Your task to perform on an android device: toggle notifications settings in the gmail app Image 0: 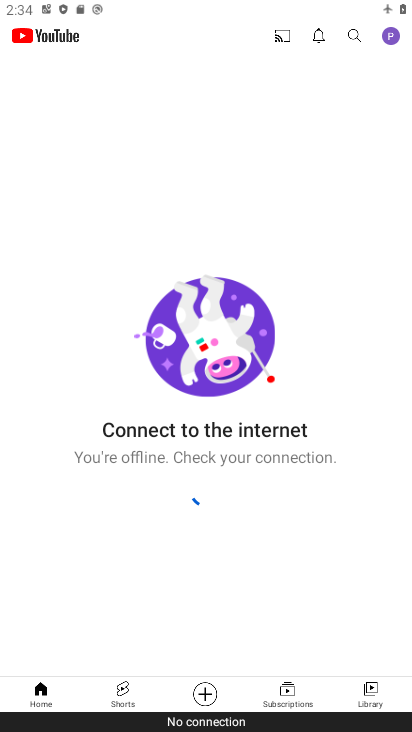
Step 0: press home button
Your task to perform on an android device: toggle notifications settings in the gmail app Image 1: 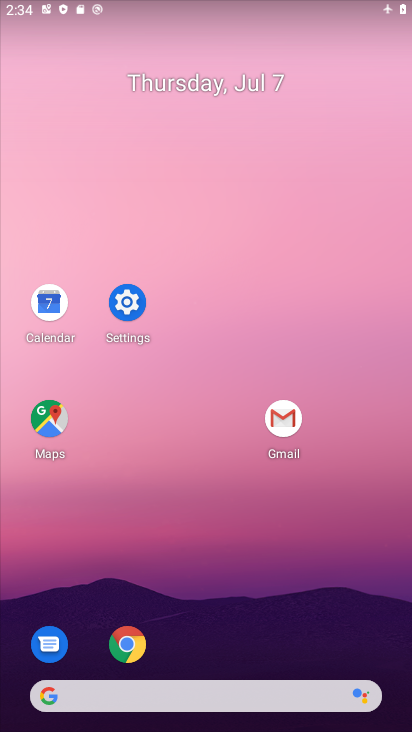
Step 1: click (289, 411)
Your task to perform on an android device: toggle notifications settings in the gmail app Image 2: 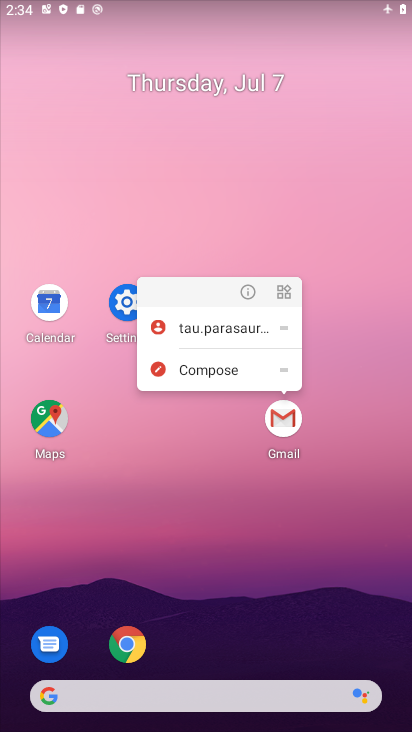
Step 2: click (284, 413)
Your task to perform on an android device: toggle notifications settings in the gmail app Image 3: 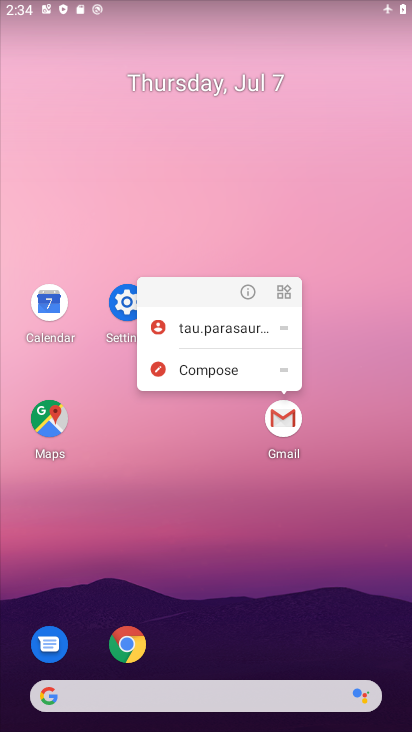
Step 3: click (284, 413)
Your task to perform on an android device: toggle notifications settings in the gmail app Image 4: 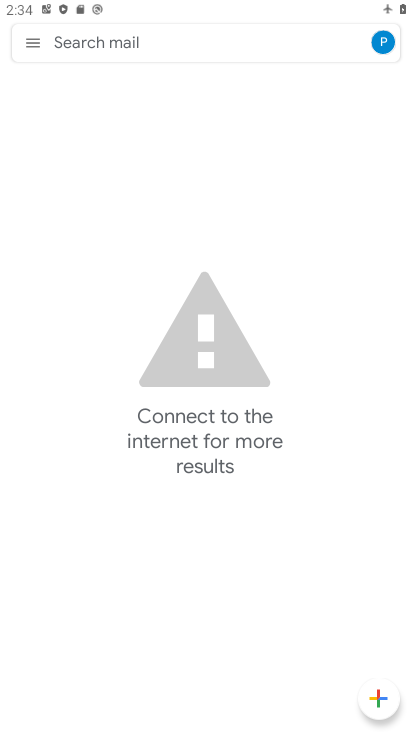
Step 4: click (284, 413)
Your task to perform on an android device: toggle notifications settings in the gmail app Image 5: 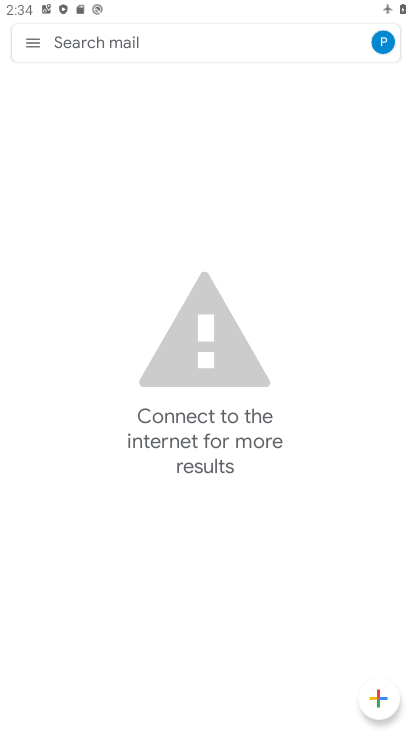
Step 5: click (30, 41)
Your task to perform on an android device: toggle notifications settings in the gmail app Image 6: 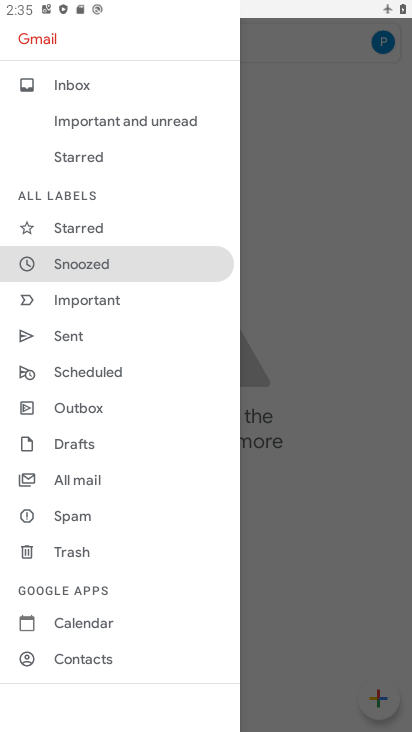
Step 6: drag from (145, 621) to (165, 271)
Your task to perform on an android device: toggle notifications settings in the gmail app Image 7: 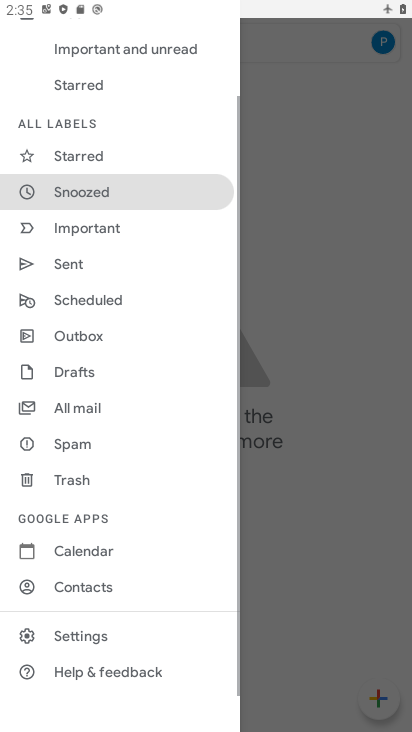
Step 7: click (91, 630)
Your task to perform on an android device: toggle notifications settings in the gmail app Image 8: 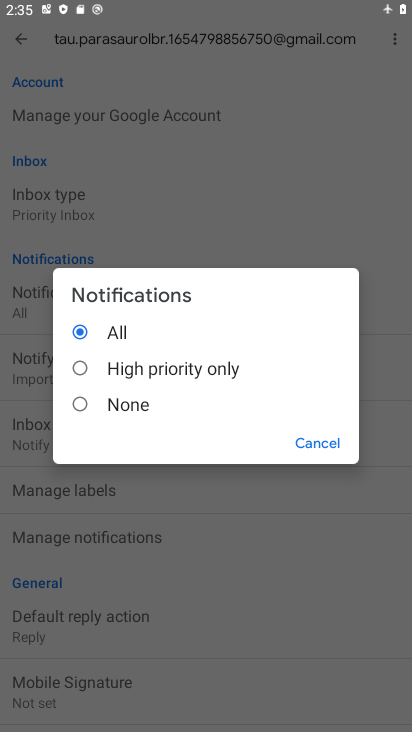
Step 8: click (300, 442)
Your task to perform on an android device: toggle notifications settings in the gmail app Image 9: 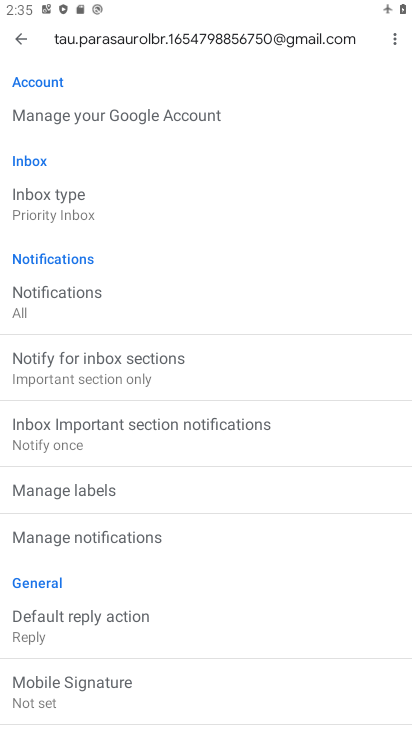
Step 9: drag from (105, 679) to (111, 342)
Your task to perform on an android device: toggle notifications settings in the gmail app Image 10: 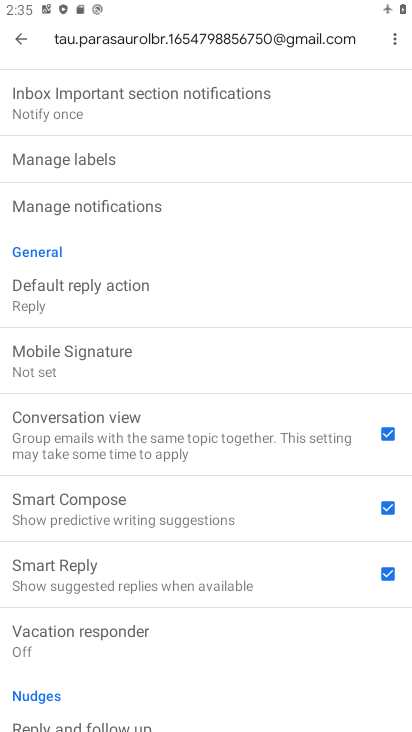
Step 10: drag from (146, 207) to (154, 554)
Your task to perform on an android device: toggle notifications settings in the gmail app Image 11: 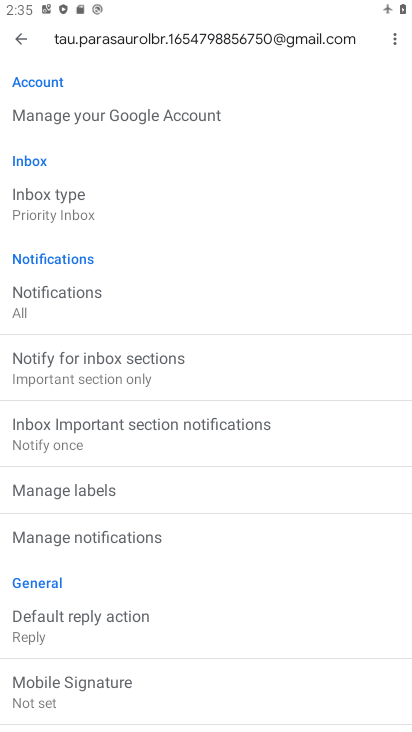
Step 11: click (53, 260)
Your task to perform on an android device: toggle notifications settings in the gmail app Image 12: 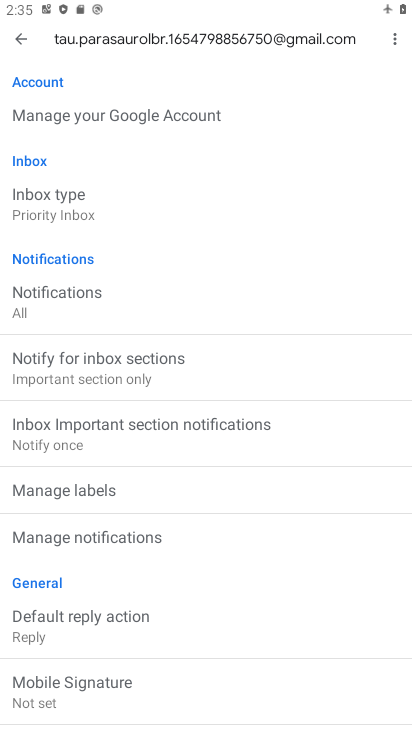
Step 12: click (55, 287)
Your task to perform on an android device: toggle notifications settings in the gmail app Image 13: 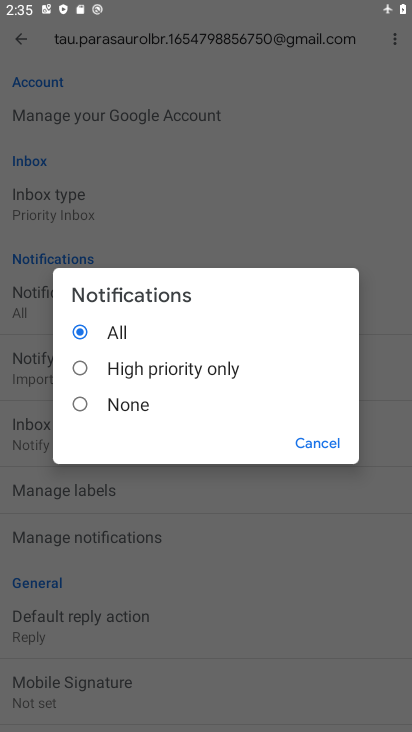
Step 13: click (84, 366)
Your task to perform on an android device: toggle notifications settings in the gmail app Image 14: 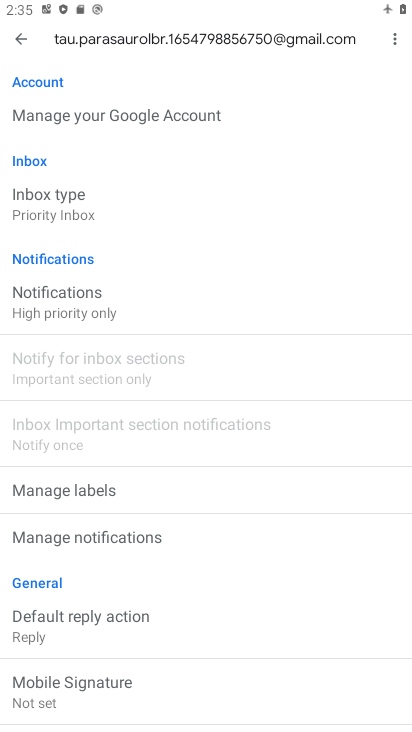
Step 14: task complete